Your task to perform on an android device: Open wifi settings Image 0: 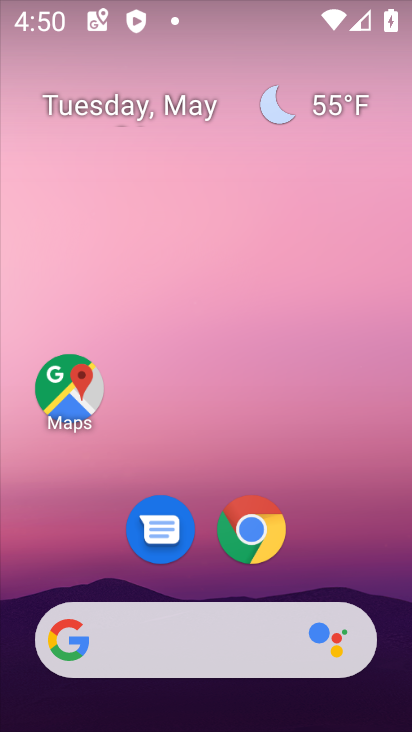
Step 0: drag from (336, 668) to (120, 17)
Your task to perform on an android device: Open wifi settings Image 1: 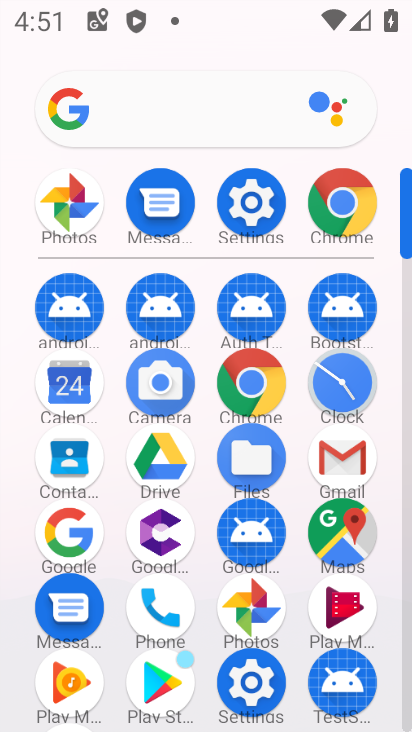
Step 1: click (246, 216)
Your task to perform on an android device: Open wifi settings Image 2: 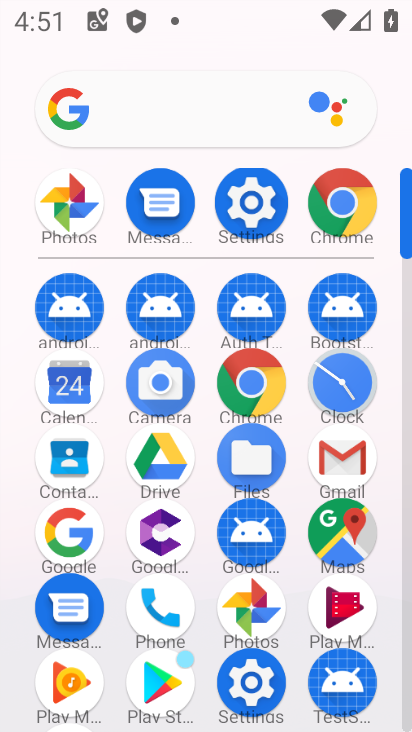
Step 2: click (251, 216)
Your task to perform on an android device: Open wifi settings Image 3: 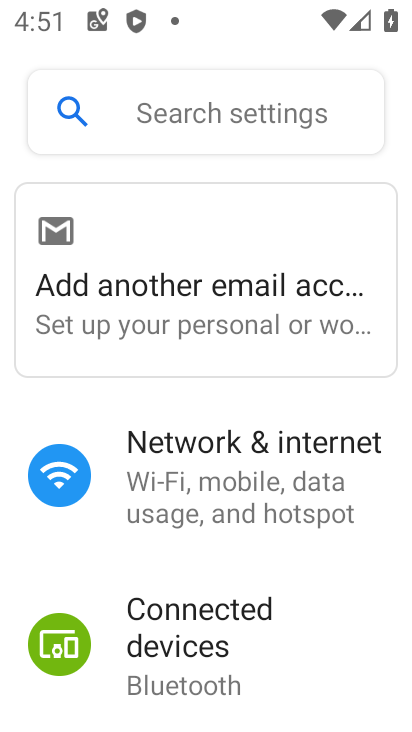
Step 3: click (264, 479)
Your task to perform on an android device: Open wifi settings Image 4: 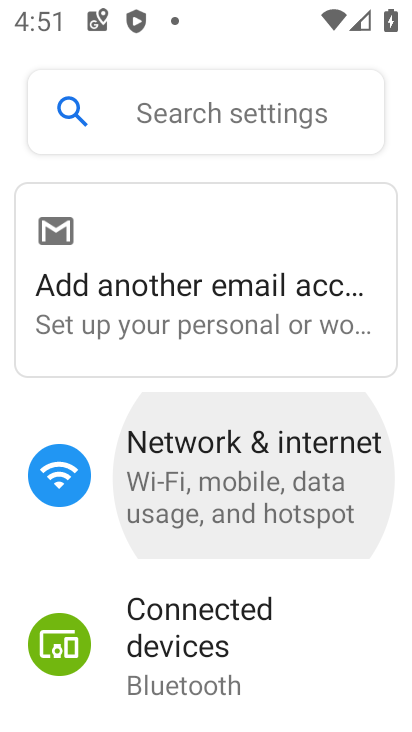
Step 4: click (268, 470)
Your task to perform on an android device: Open wifi settings Image 5: 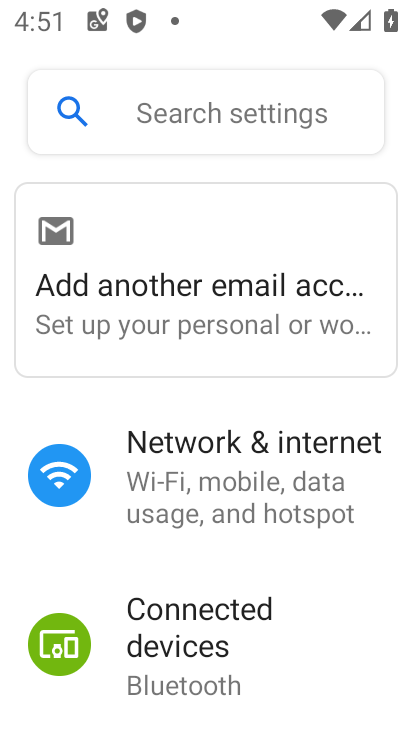
Step 5: click (260, 469)
Your task to perform on an android device: Open wifi settings Image 6: 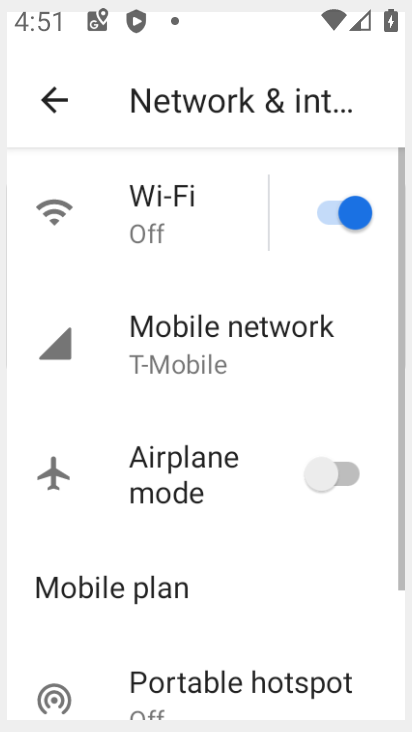
Step 6: click (258, 467)
Your task to perform on an android device: Open wifi settings Image 7: 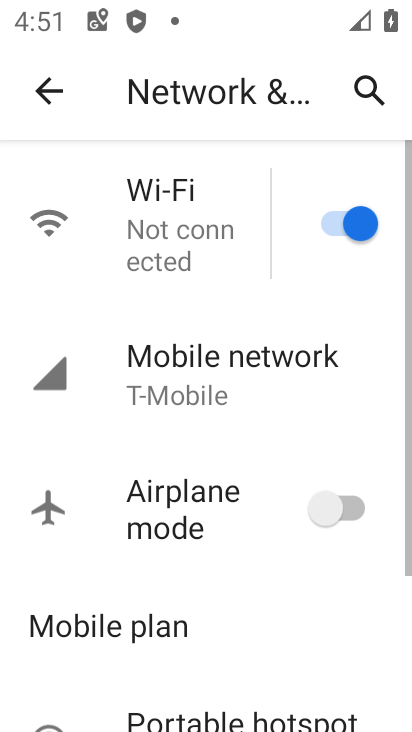
Step 7: task complete